Your task to perform on an android device: Go to eBay Image 0: 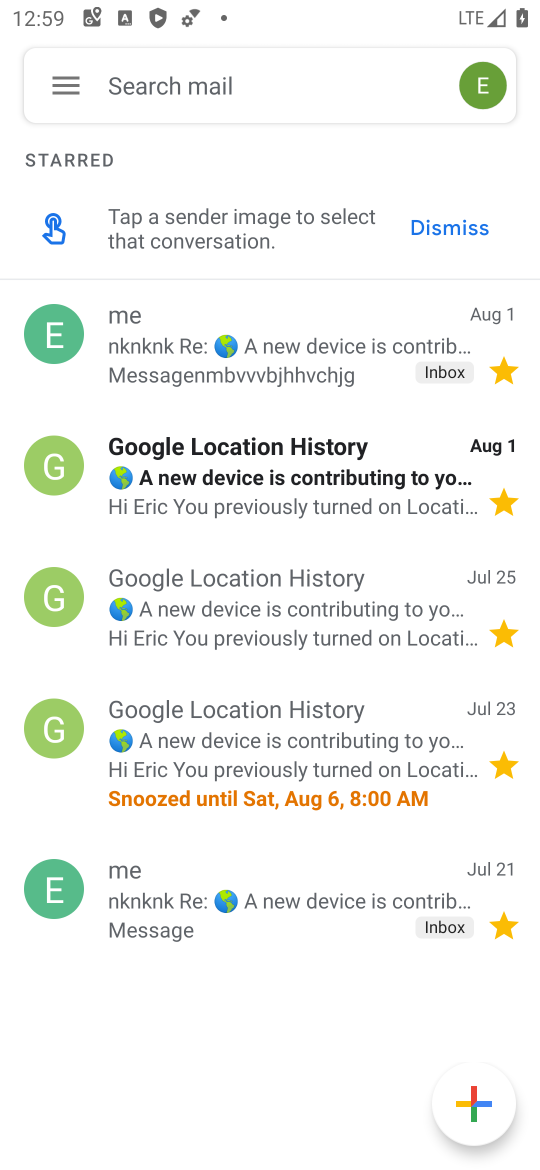
Step 0: press home button
Your task to perform on an android device: Go to eBay Image 1: 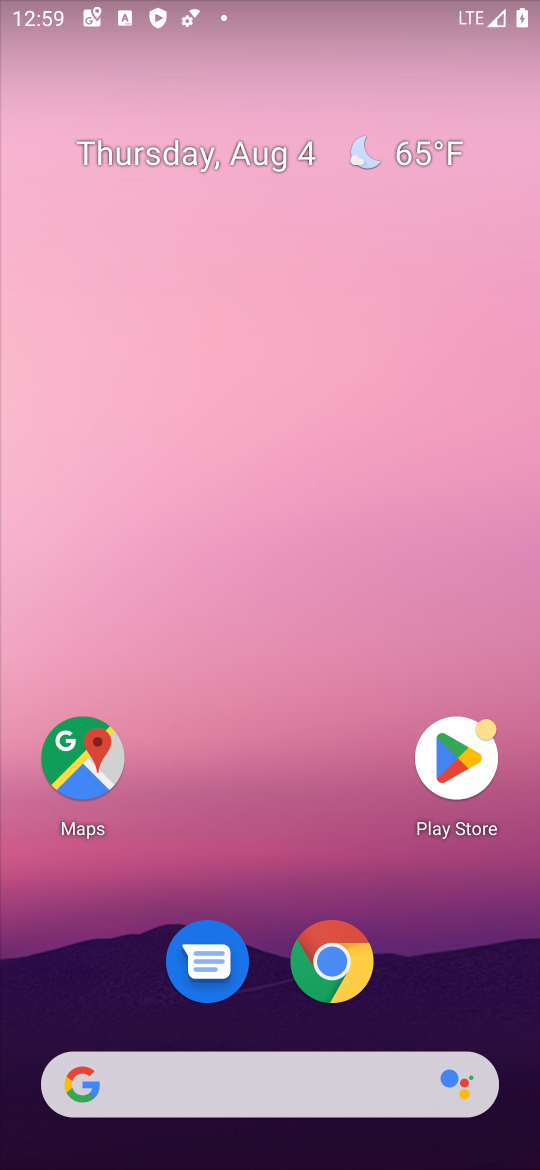
Step 1: click (337, 1095)
Your task to perform on an android device: Go to eBay Image 2: 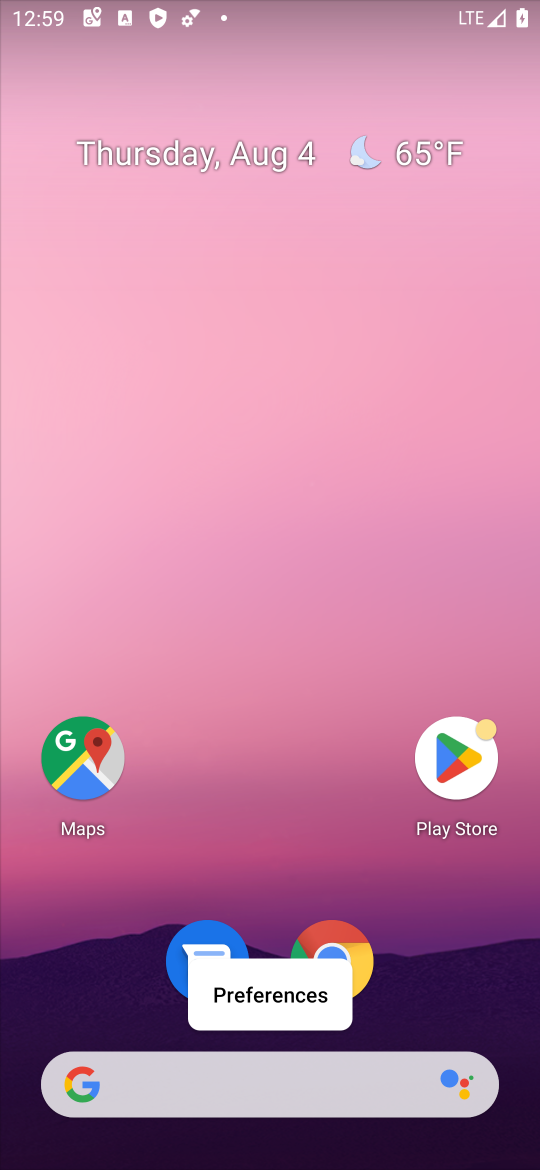
Step 2: click (245, 1064)
Your task to perform on an android device: Go to eBay Image 3: 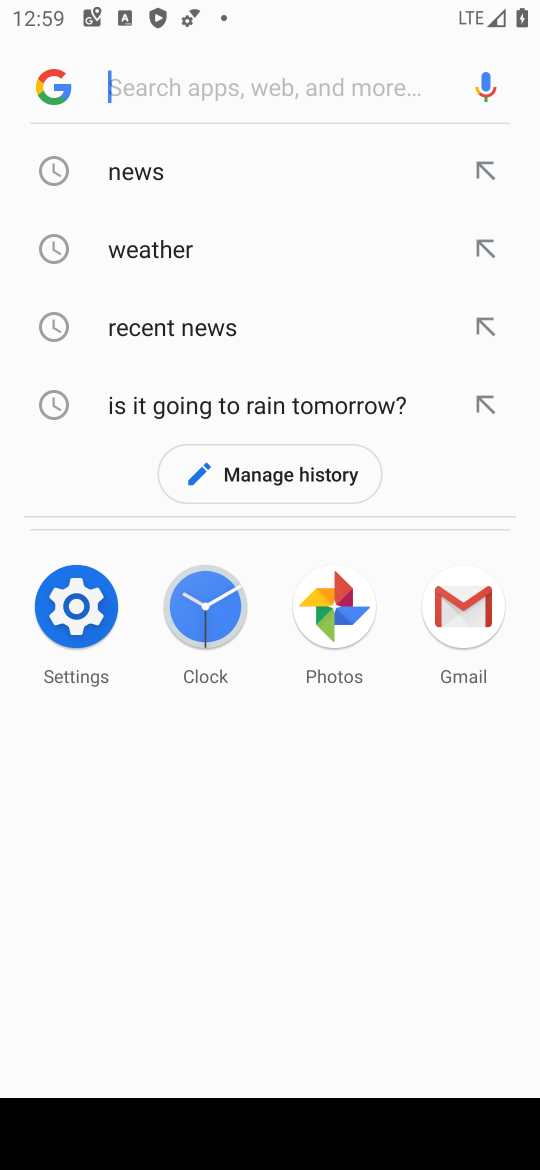
Step 3: type "ebay"
Your task to perform on an android device: Go to eBay Image 4: 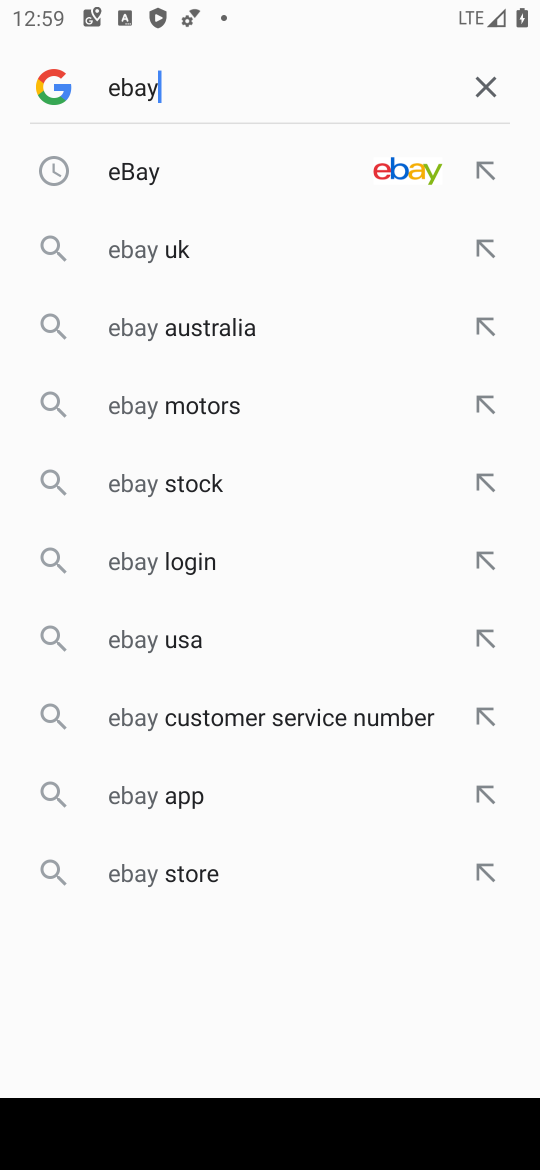
Step 4: click (300, 162)
Your task to perform on an android device: Go to eBay Image 5: 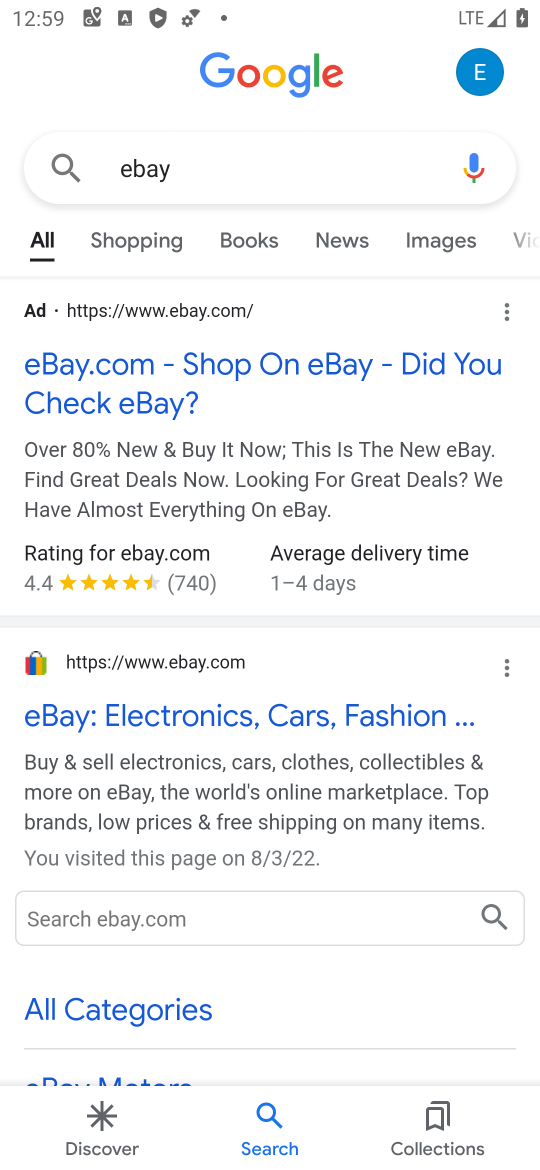
Step 5: click (179, 352)
Your task to perform on an android device: Go to eBay Image 6: 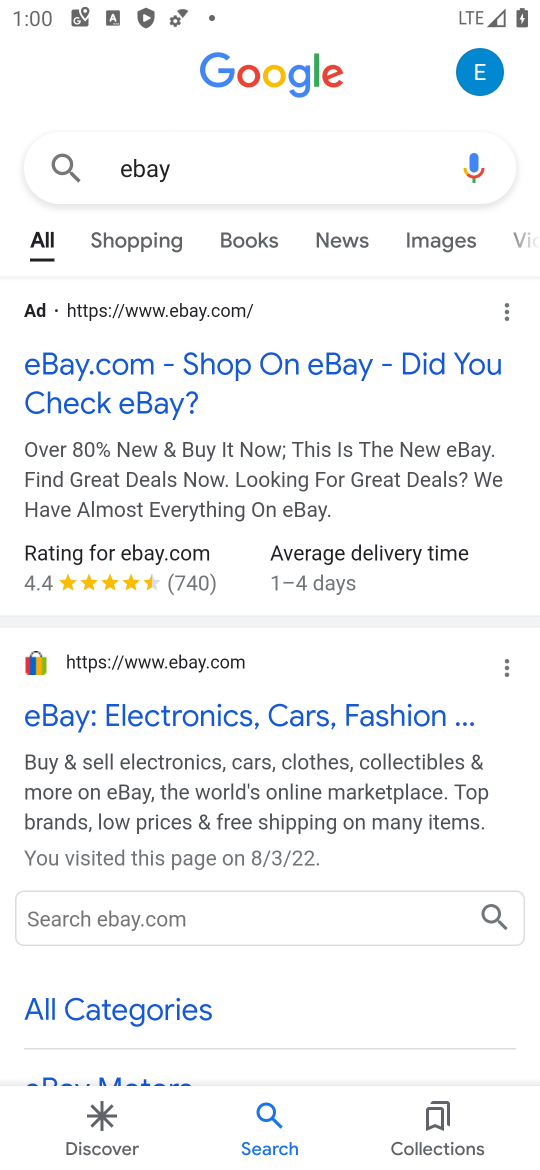
Step 6: click (123, 370)
Your task to perform on an android device: Go to eBay Image 7: 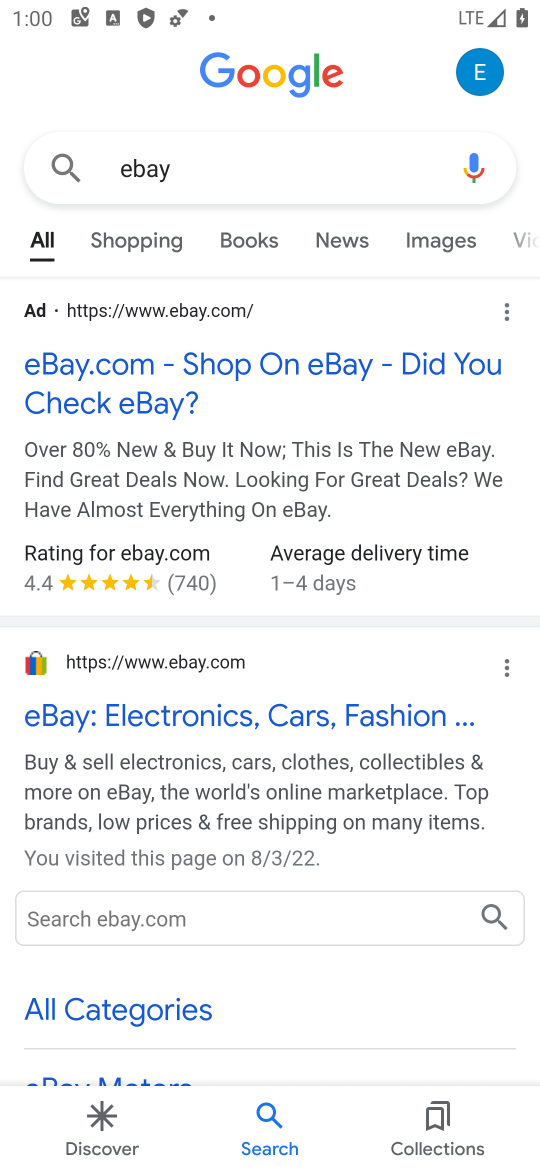
Step 7: click (86, 712)
Your task to perform on an android device: Go to eBay Image 8: 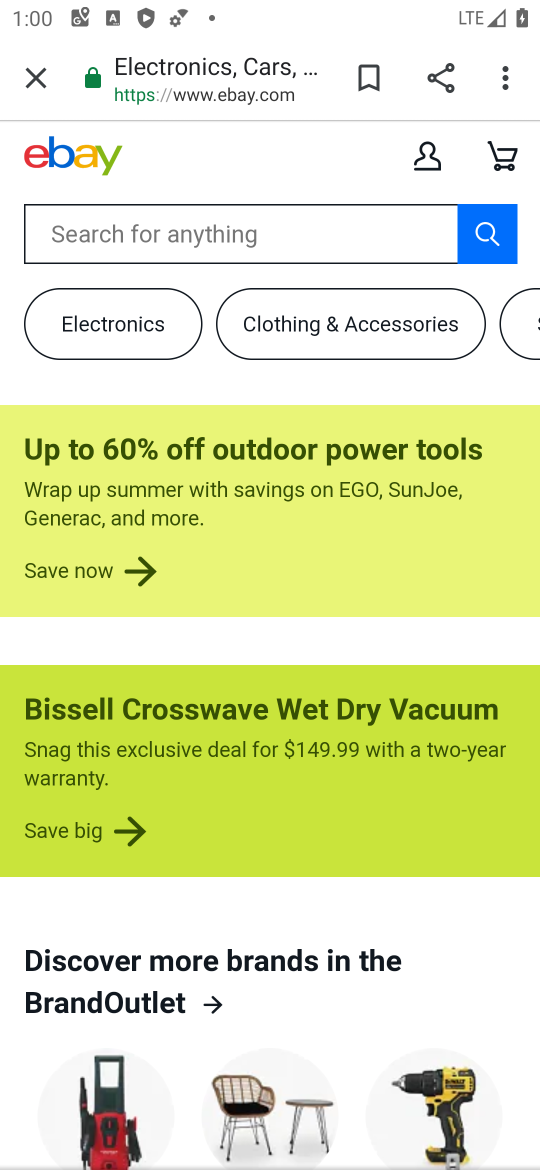
Step 8: task complete